Your task to perform on an android device: star an email in the gmail app Image 0: 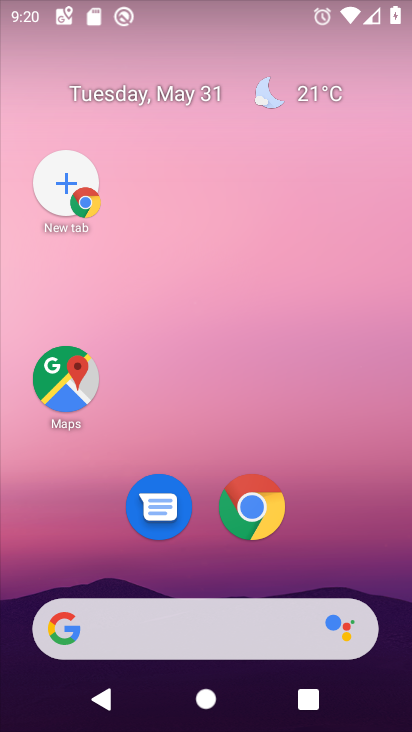
Step 0: drag from (275, 699) to (262, 79)
Your task to perform on an android device: star an email in the gmail app Image 1: 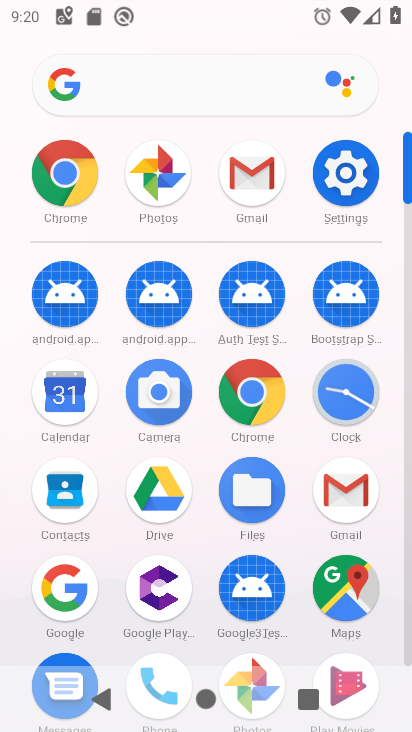
Step 1: click (346, 497)
Your task to perform on an android device: star an email in the gmail app Image 2: 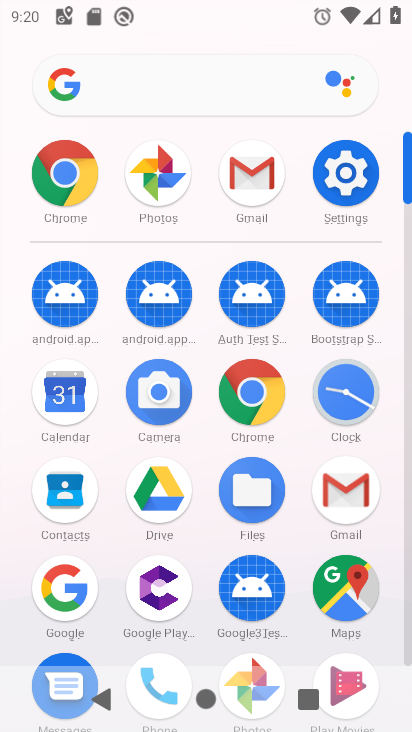
Step 2: click (346, 497)
Your task to perform on an android device: star an email in the gmail app Image 3: 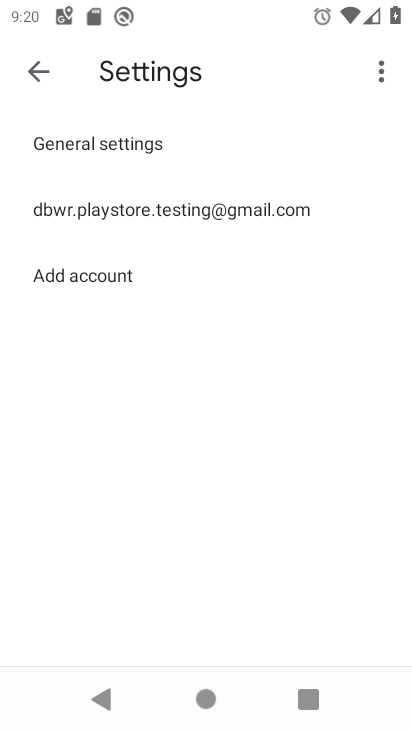
Step 3: click (153, 214)
Your task to perform on an android device: star an email in the gmail app Image 4: 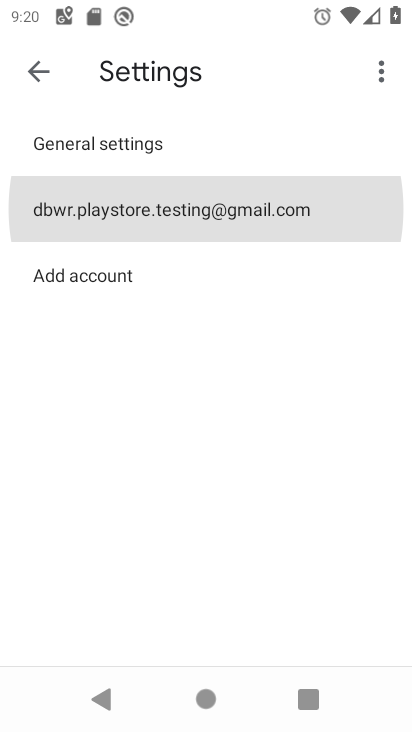
Step 4: click (152, 213)
Your task to perform on an android device: star an email in the gmail app Image 5: 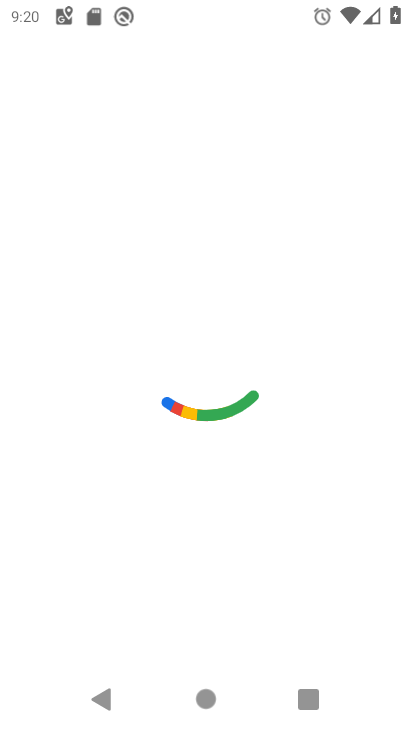
Step 5: press back button
Your task to perform on an android device: star an email in the gmail app Image 6: 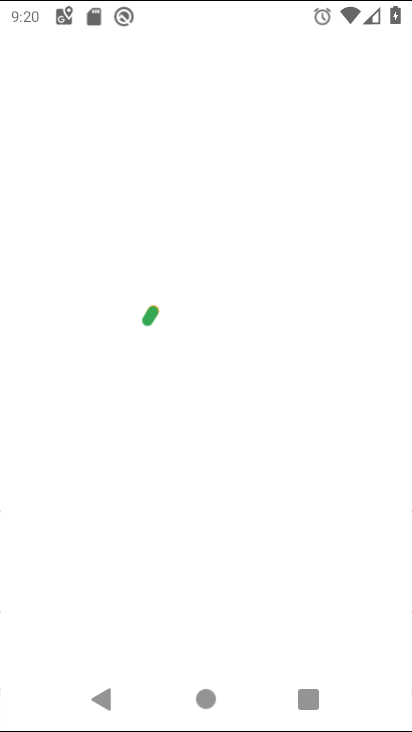
Step 6: press back button
Your task to perform on an android device: star an email in the gmail app Image 7: 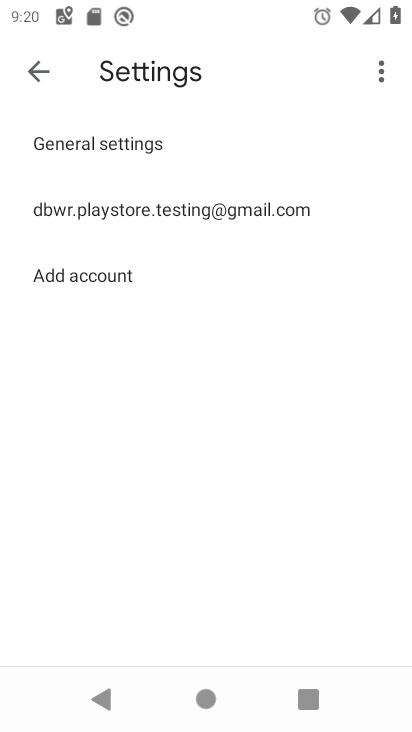
Step 7: click (107, 220)
Your task to perform on an android device: star an email in the gmail app Image 8: 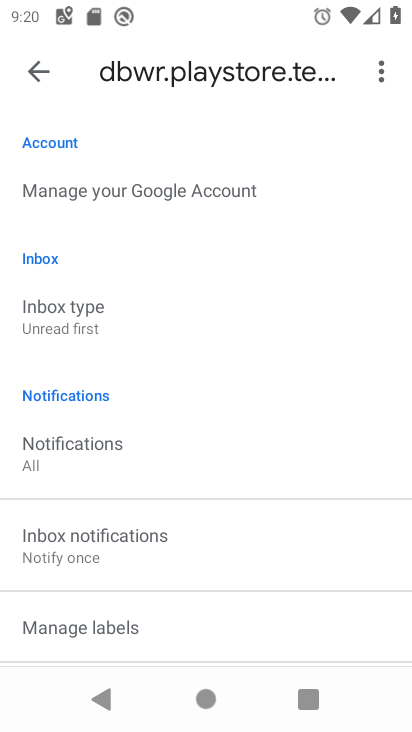
Step 8: click (39, 77)
Your task to perform on an android device: star an email in the gmail app Image 9: 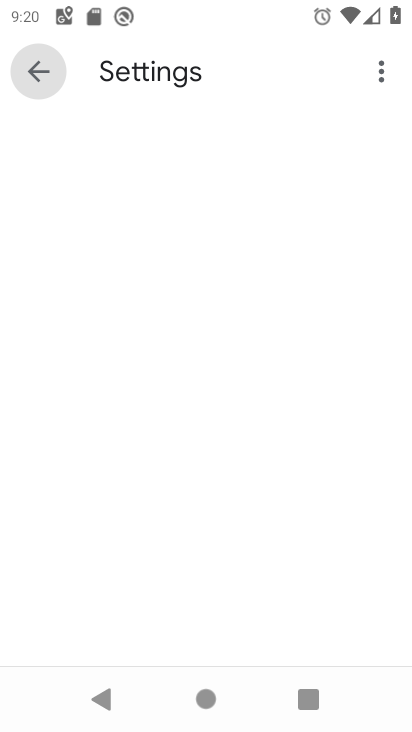
Step 9: click (39, 77)
Your task to perform on an android device: star an email in the gmail app Image 10: 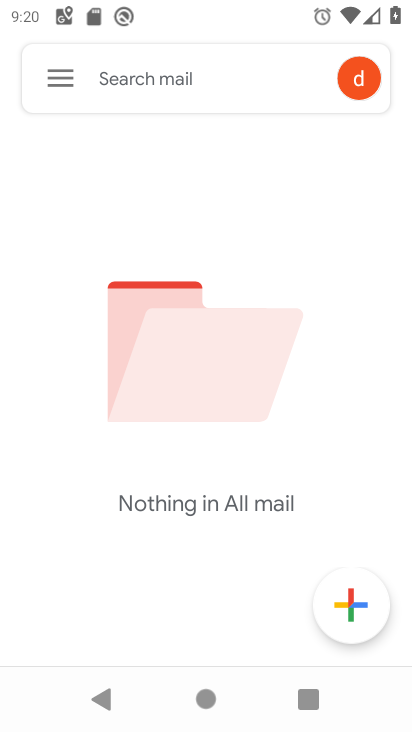
Step 10: press back button
Your task to perform on an android device: star an email in the gmail app Image 11: 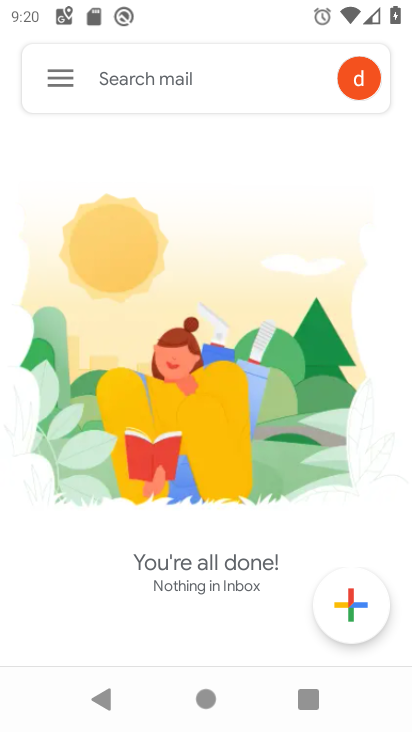
Step 11: click (52, 78)
Your task to perform on an android device: star an email in the gmail app Image 12: 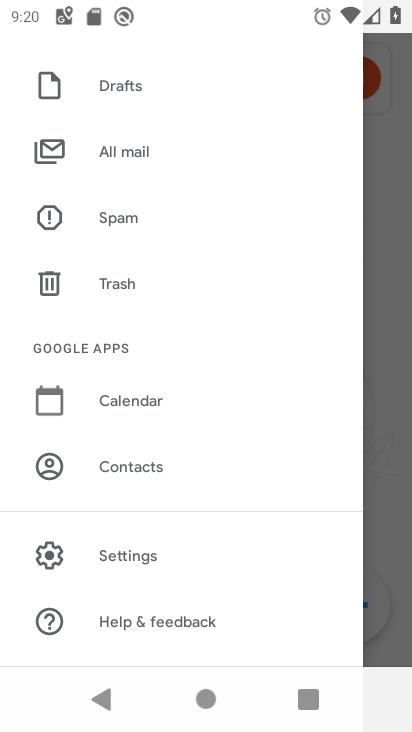
Step 12: drag from (154, 261) to (204, 708)
Your task to perform on an android device: star an email in the gmail app Image 13: 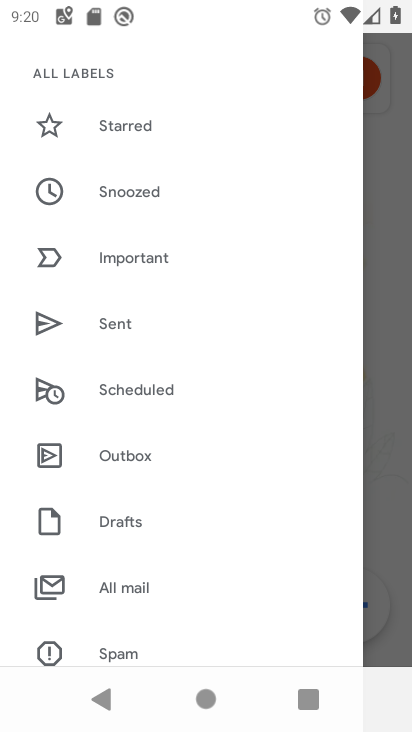
Step 13: click (117, 609)
Your task to perform on an android device: star an email in the gmail app Image 14: 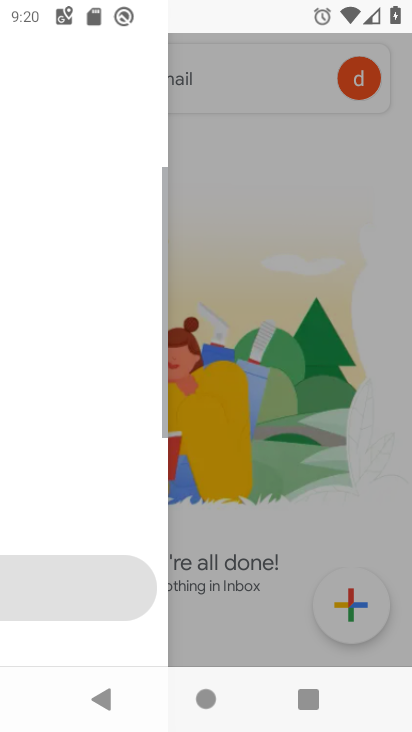
Step 14: click (124, 593)
Your task to perform on an android device: star an email in the gmail app Image 15: 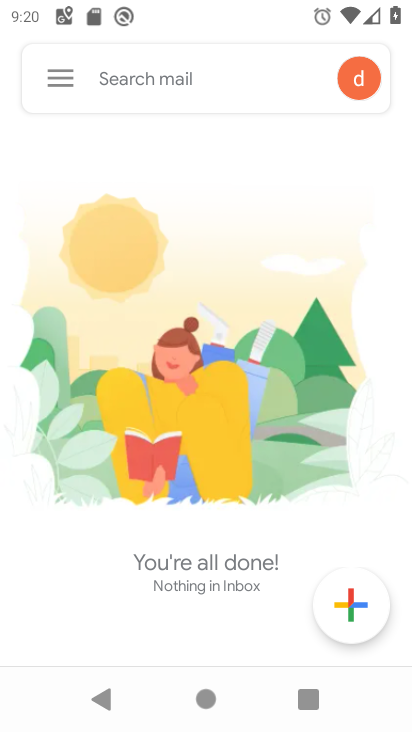
Step 15: click (125, 592)
Your task to perform on an android device: star an email in the gmail app Image 16: 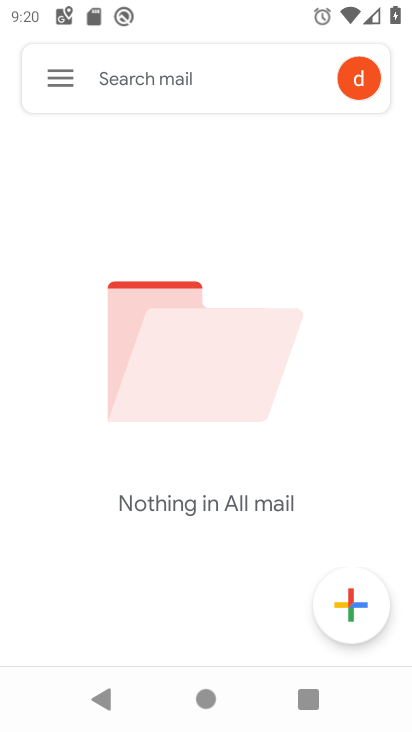
Step 16: task complete